Your task to perform on an android device: check google app version Image 0: 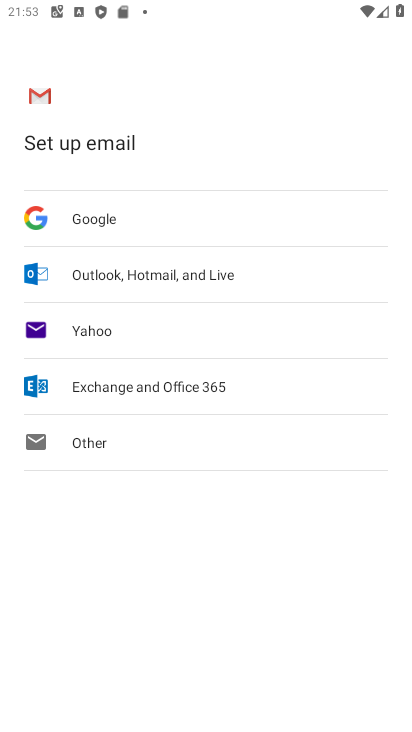
Step 0: press home button
Your task to perform on an android device: check google app version Image 1: 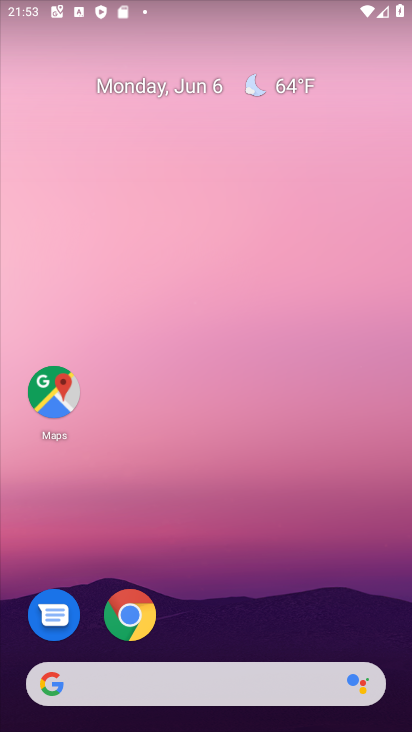
Step 1: drag from (402, 703) to (327, 121)
Your task to perform on an android device: check google app version Image 2: 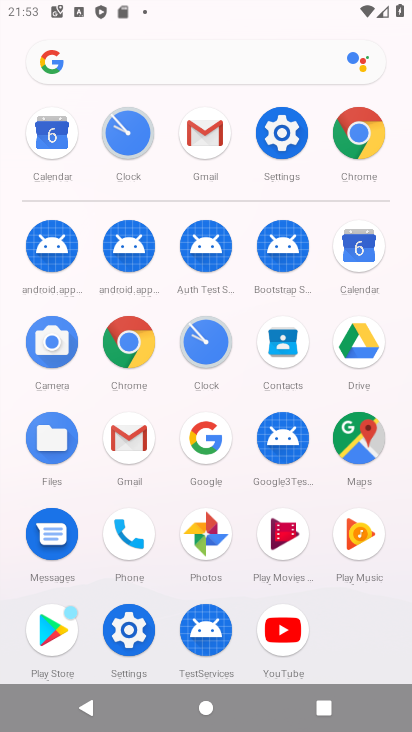
Step 2: click (200, 430)
Your task to perform on an android device: check google app version Image 3: 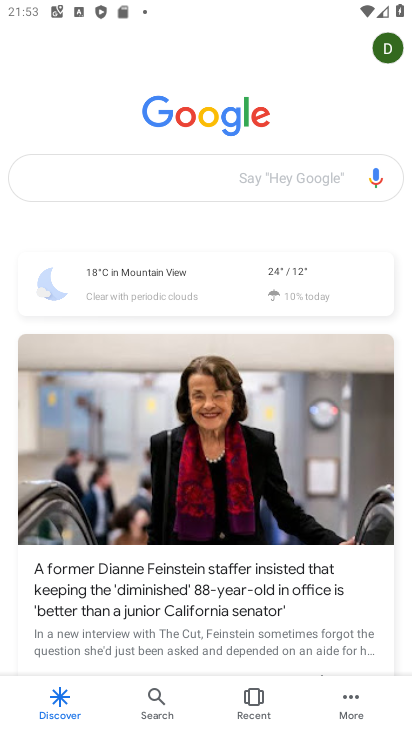
Step 3: click (337, 711)
Your task to perform on an android device: check google app version Image 4: 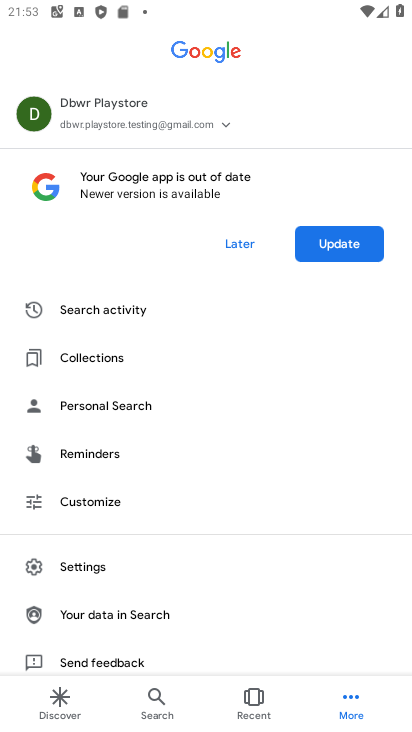
Step 4: drag from (246, 598) to (232, 246)
Your task to perform on an android device: check google app version Image 5: 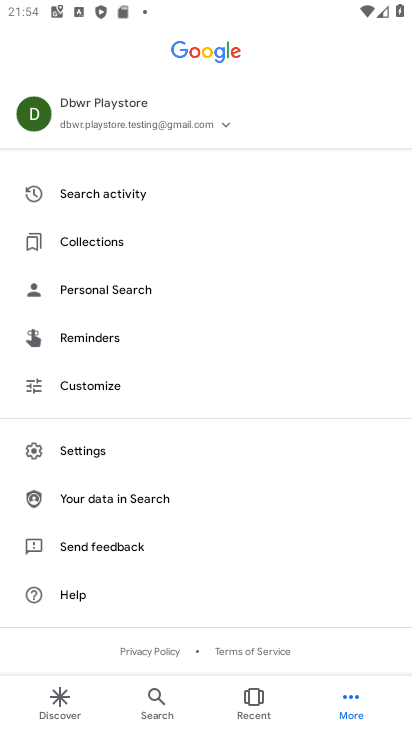
Step 5: click (75, 450)
Your task to perform on an android device: check google app version Image 6: 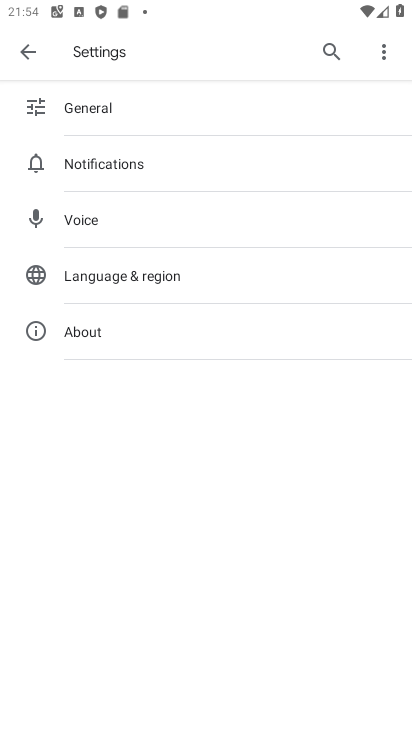
Step 6: click (69, 335)
Your task to perform on an android device: check google app version Image 7: 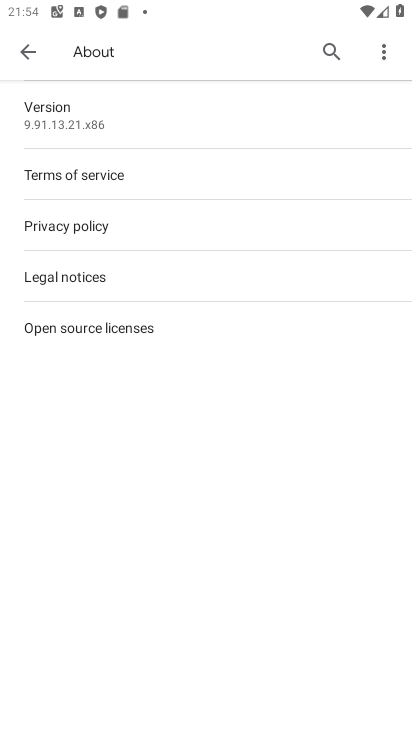
Step 7: click (95, 113)
Your task to perform on an android device: check google app version Image 8: 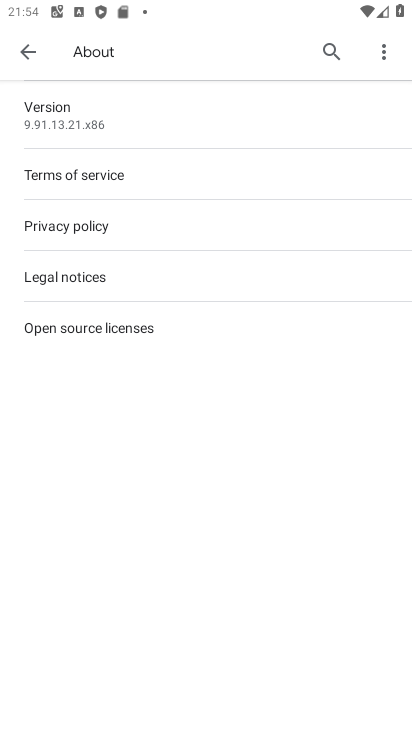
Step 8: task complete